Your task to perform on an android device: When is my next appointment? Image 0: 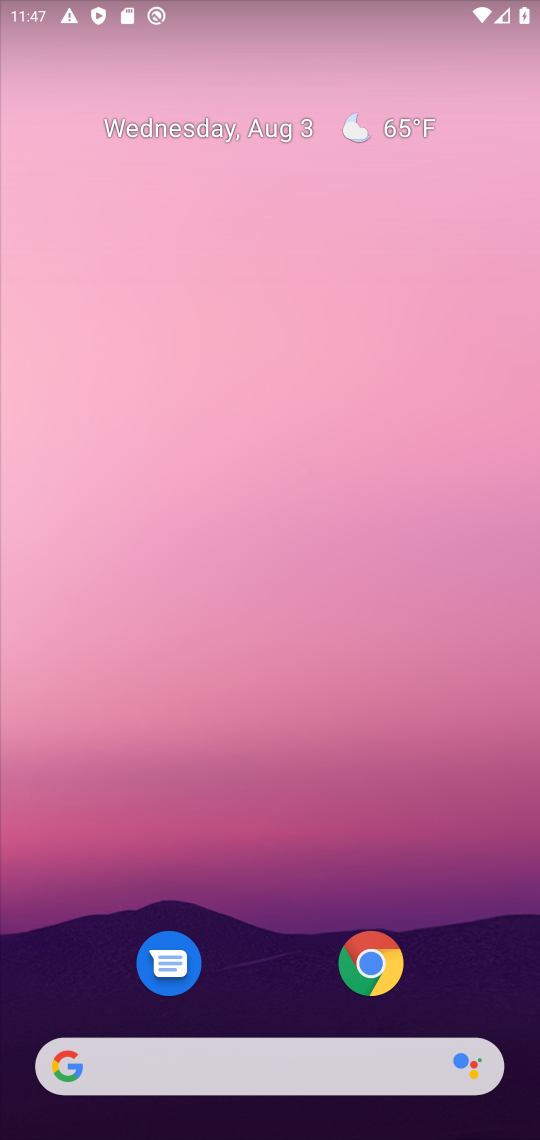
Step 0: drag from (340, 1002) to (349, 249)
Your task to perform on an android device: When is my next appointment? Image 1: 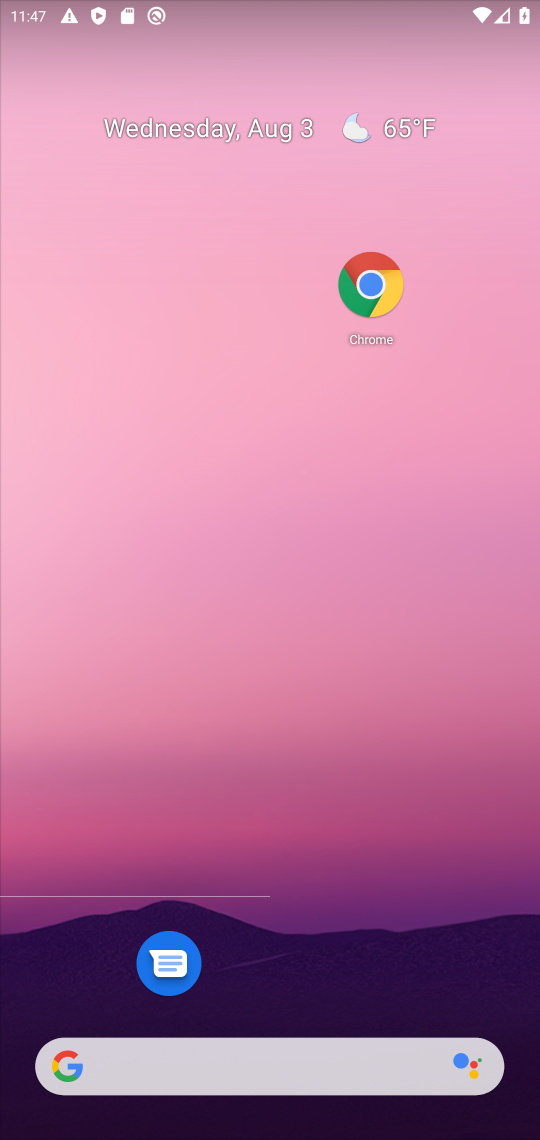
Step 1: drag from (240, 993) to (250, 249)
Your task to perform on an android device: When is my next appointment? Image 2: 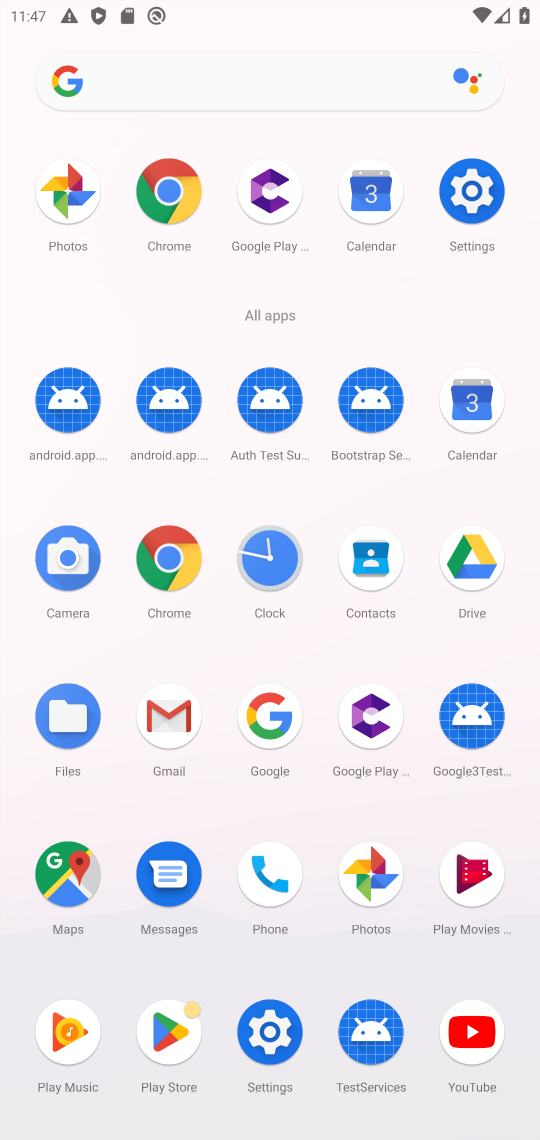
Step 2: click (373, 167)
Your task to perform on an android device: When is my next appointment? Image 3: 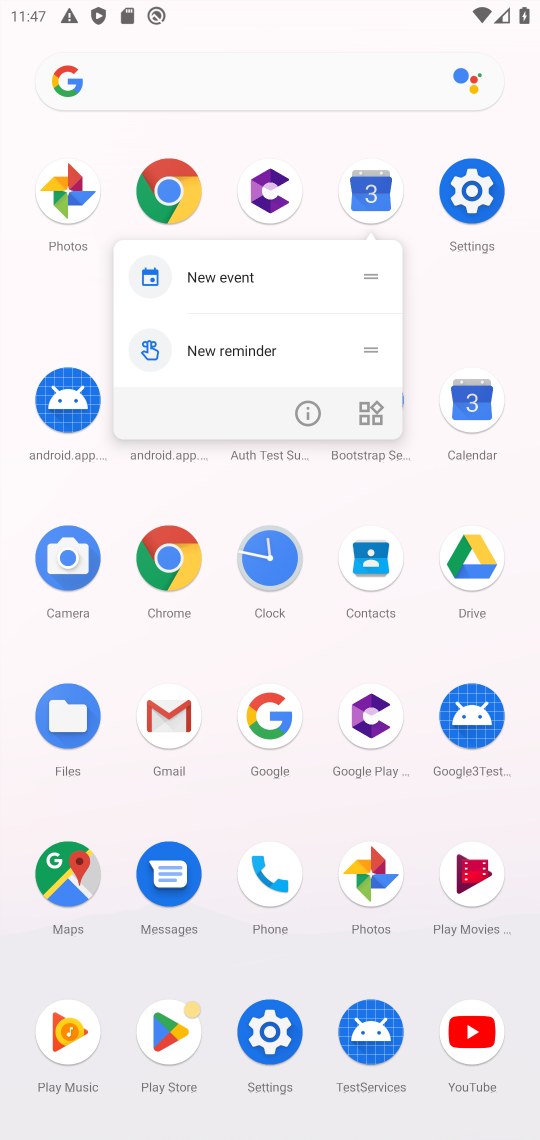
Step 3: click (380, 173)
Your task to perform on an android device: When is my next appointment? Image 4: 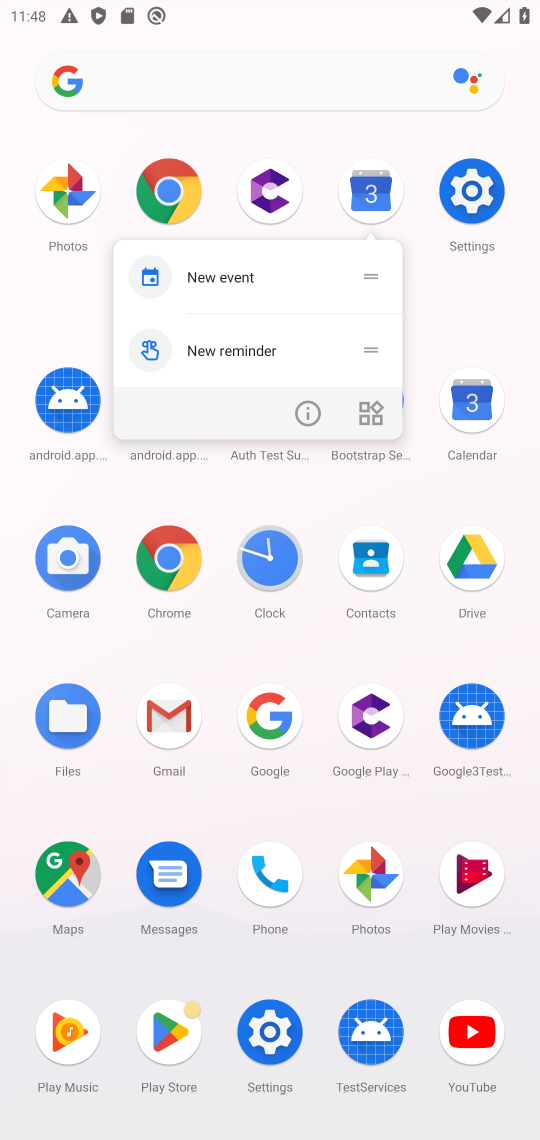
Step 4: click (388, 178)
Your task to perform on an android device: When is my next appointment? Image 5: 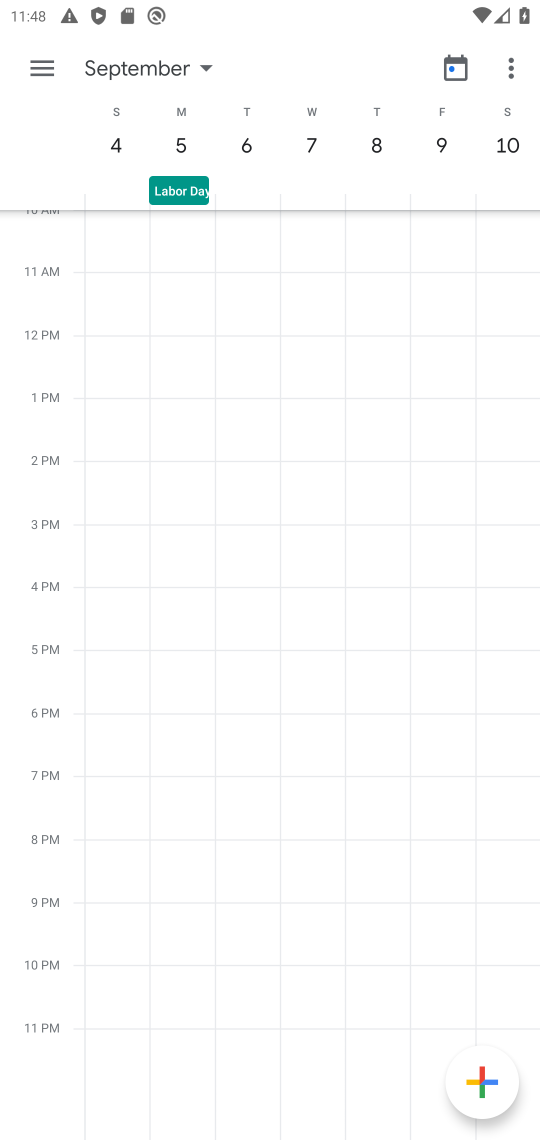
Step 5: click (376, 135)
Your task to perform on an android device: When is my next appointment? Image 6: 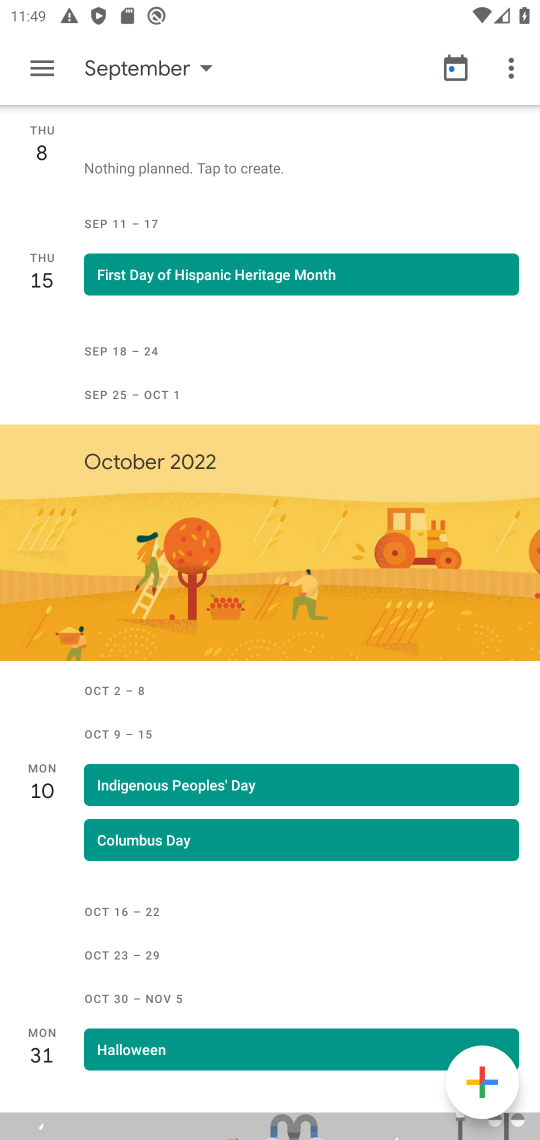
Step 6: click (53, 59)
Your task to perform on an android device: When is my next appointment? Image 7: 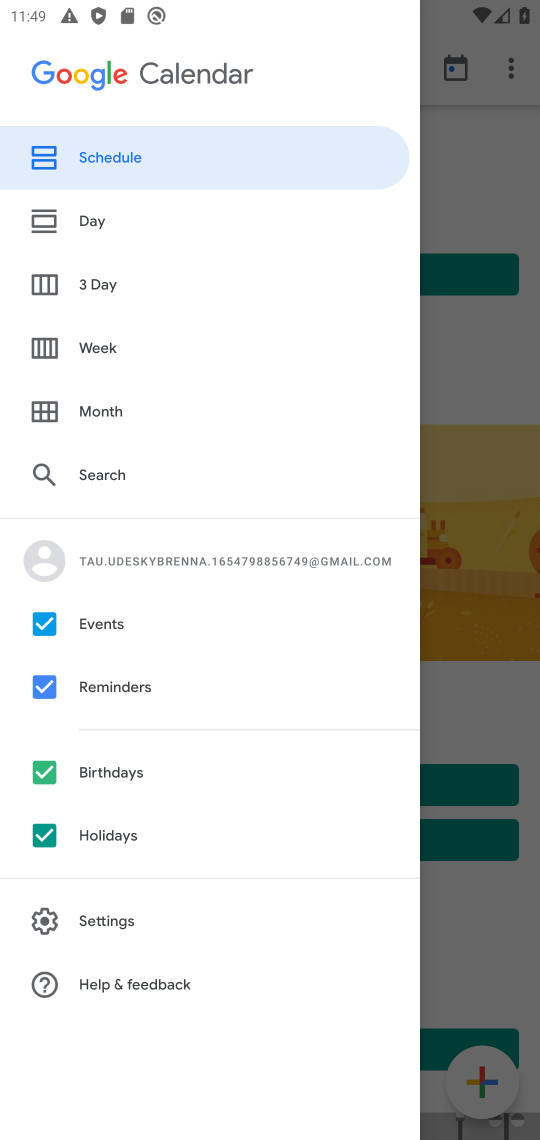
Step 7: click (116, 199)
Your task to perform on an android device: When is my next appointment? Image 8: 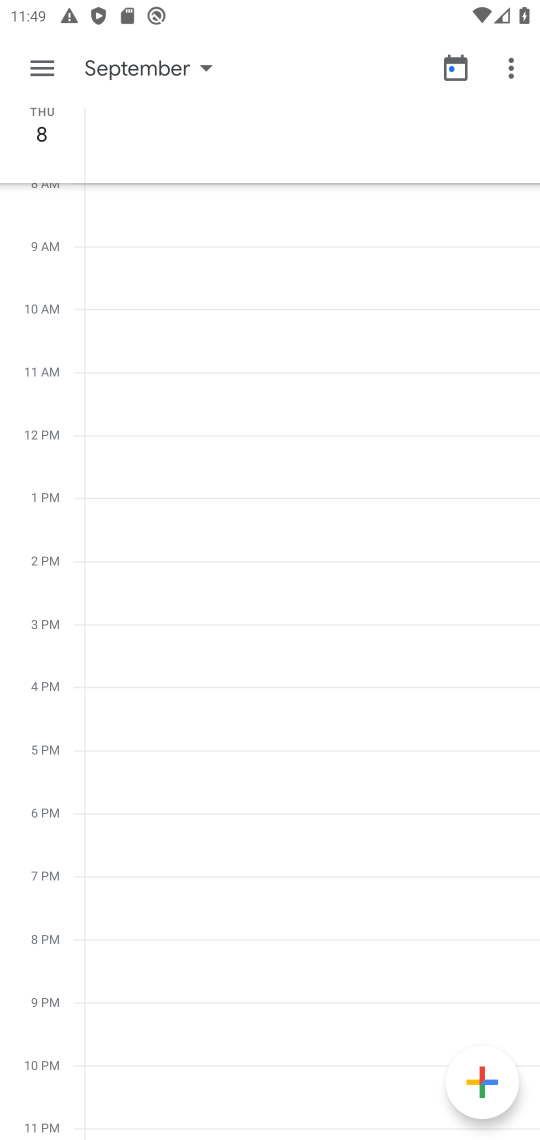
Step 8: click (41, 90)
Your task to perform on an android device: When is my next appointment? Image 9: 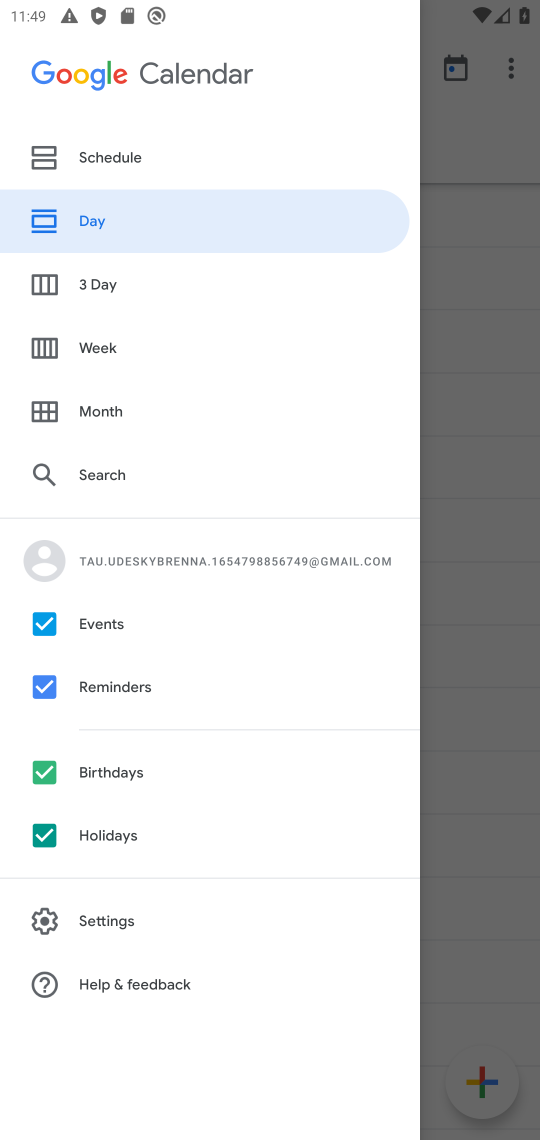
Step 9: click (106, 408)
Your task to perform on an android device: When is my next appointment? Image 10: 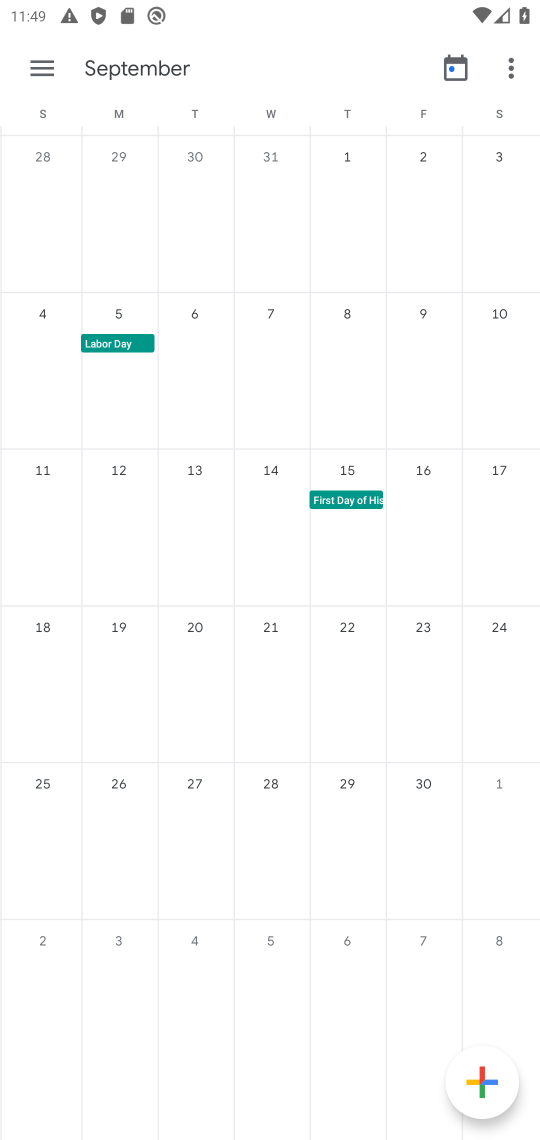
Step 10: drag from (82, 356) to (499, 453)
Your task to perform on an android device: When is my next appointment? Image 11: 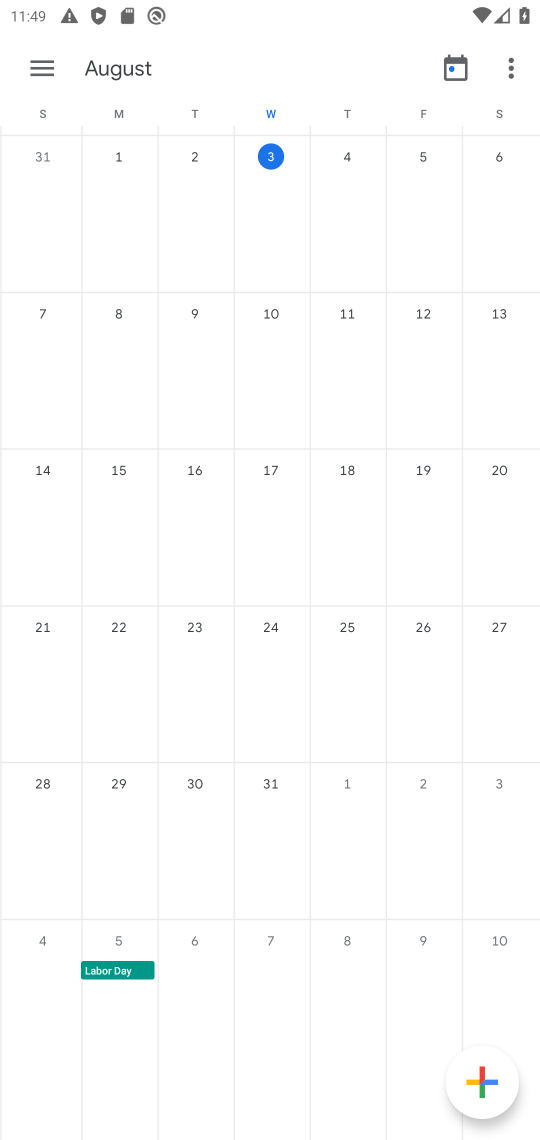
Step 11: click (50, 70)
Your task to perform on an android device: When is my next appointment? Image 12: 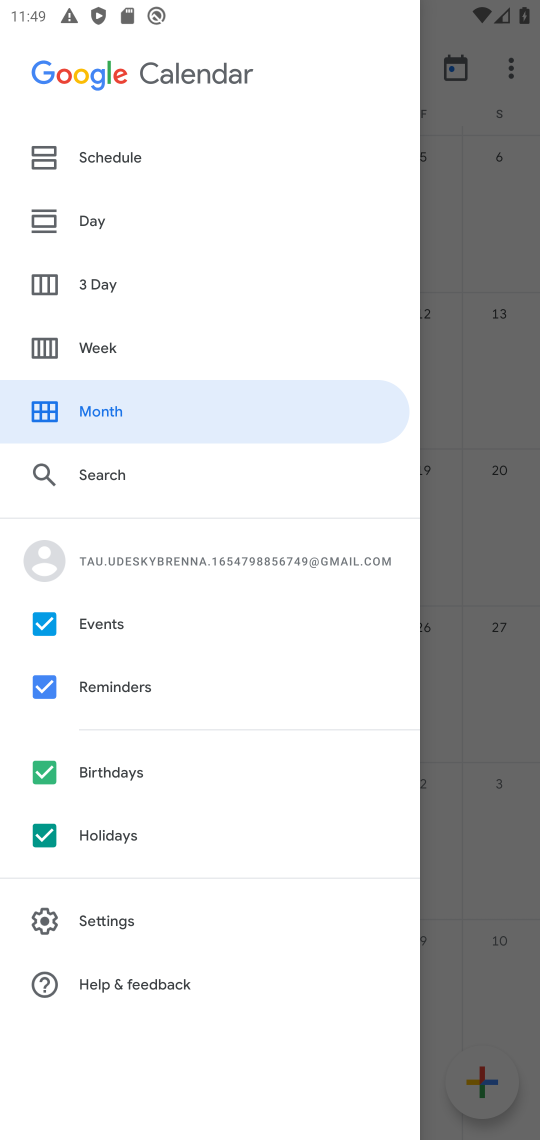
Step 12: click (131, 215)
Your task to perform on an android device: When is my next appointment? Image 13: 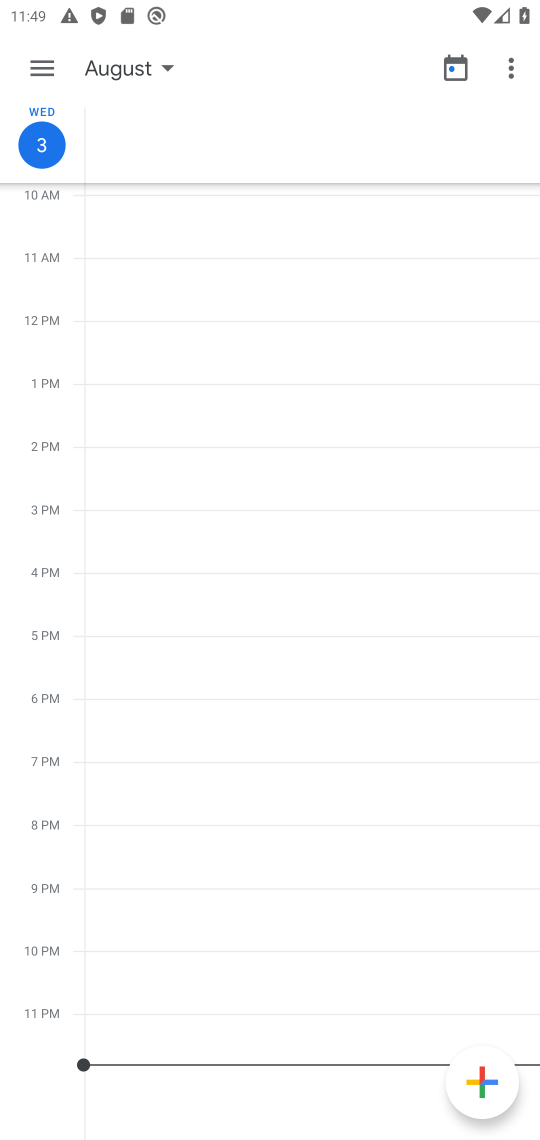
Step 13: drag from (36, 938) to (155, 152)
Your task to perform on an android device: When is my next appointment? Image 14: 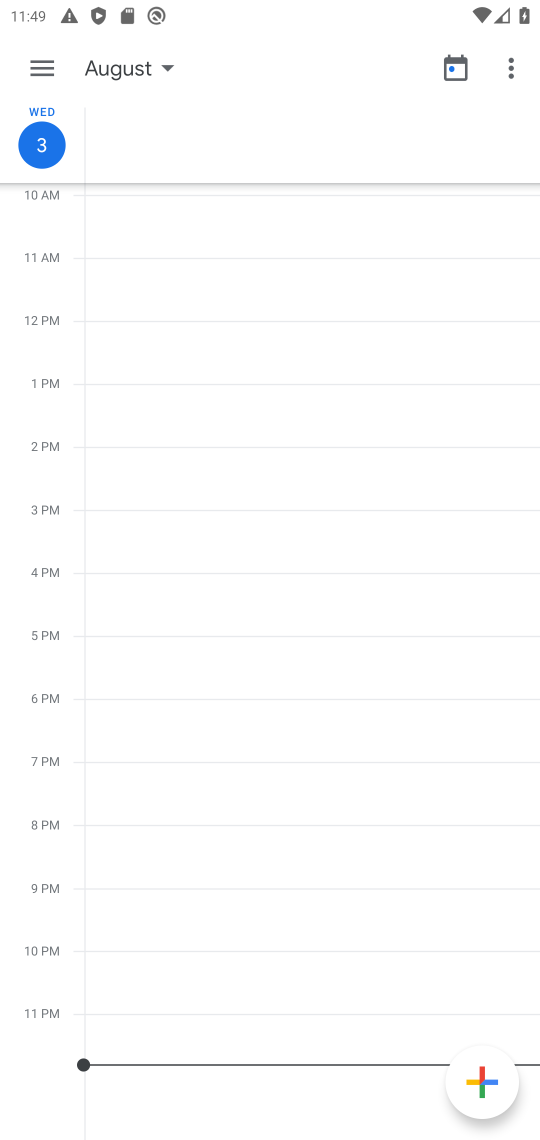
Step 14: click (48, 52)
Your task to perform on an android device: When is my next appointment? Image 15: 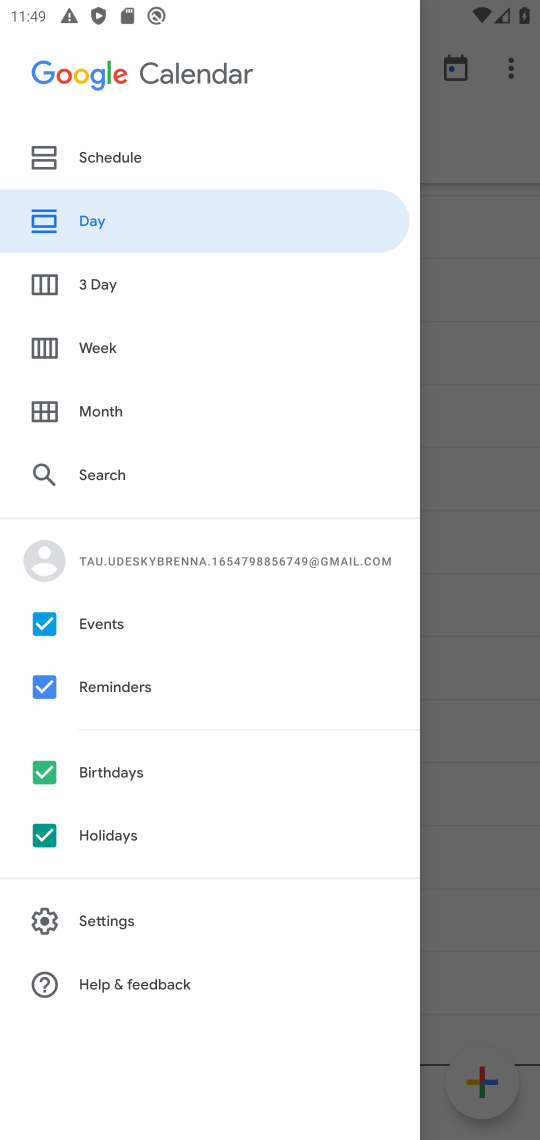
Step 15: click (134, 398)
Your task to perform on an android device: When is my next appointment? Image 16: 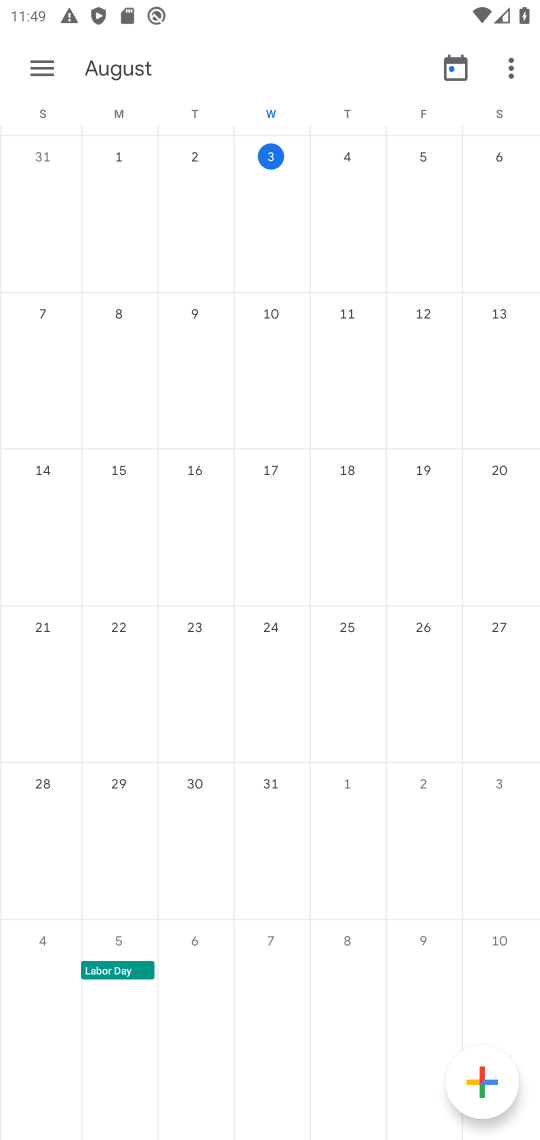
Step 16: click (428, 173)
Your task to perform on an android device: When is my next appointment? Image 17: 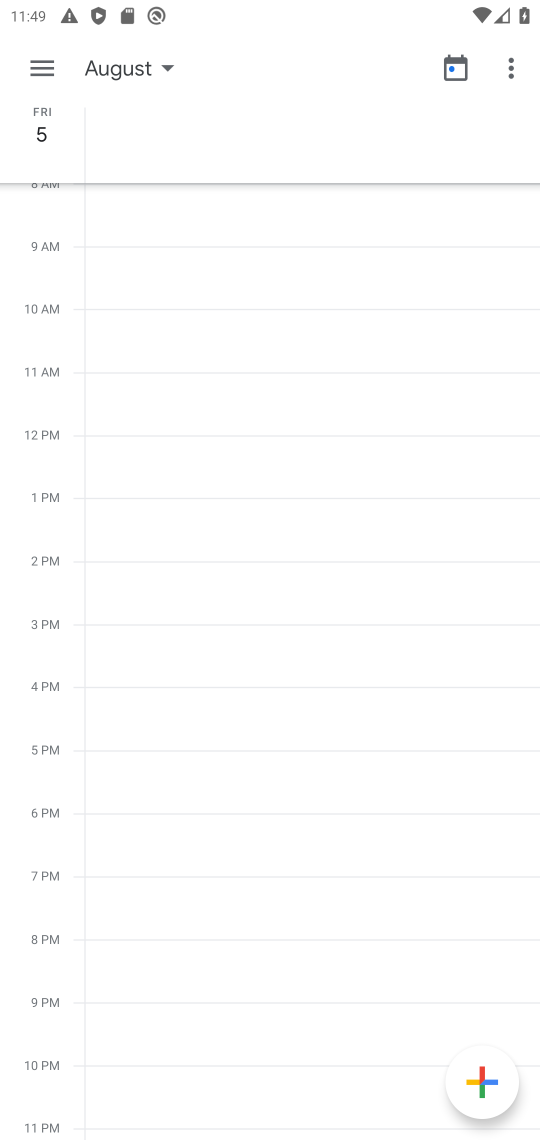
Step 17: task complete